Your task to perform on an android device: turn off airplane mode Image 0: 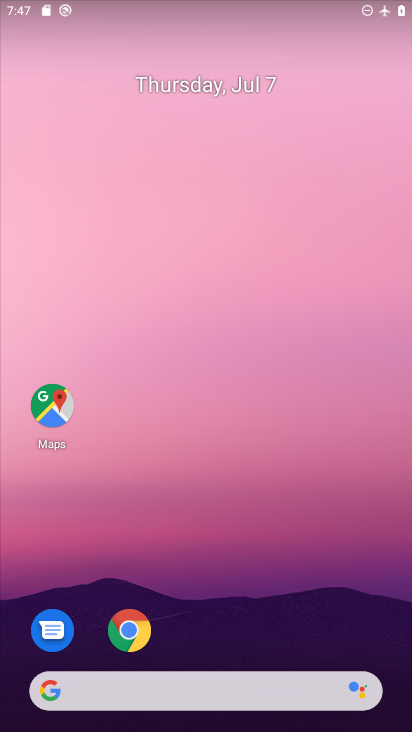
Step 0: drag from (266, 558) to (176, 131)
Your task to perform on an android device: turn off airplane mode Image 1: 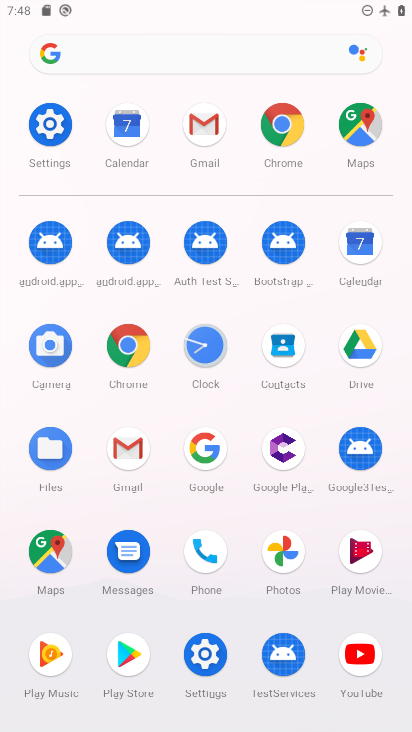
Step 1: click (50, 121)
Your task to perform on an android device: turn off airplane mode Image 2: 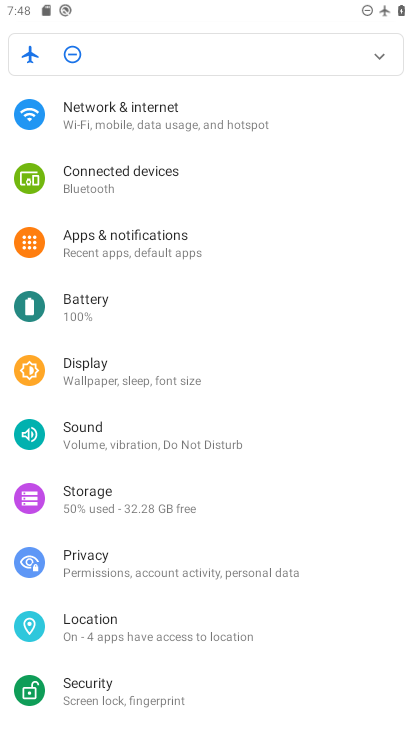
Step 2: click (108, 114)
Your task to perform on an android device: turn off airplane mode Image 3: 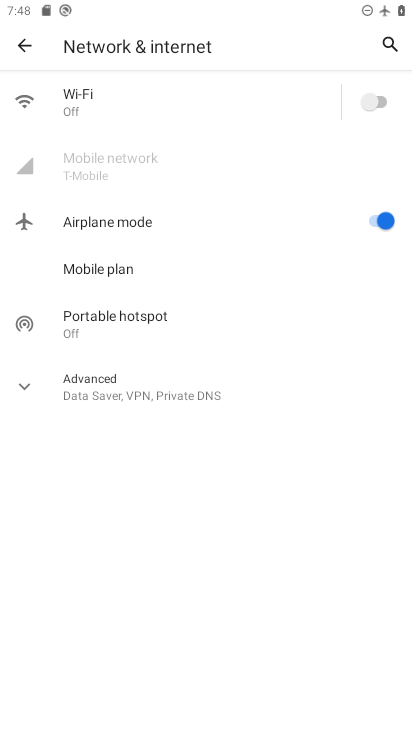
Step 3: click (381, 219)
Your task to perform on an android device: turn off airplane mode Image 4: 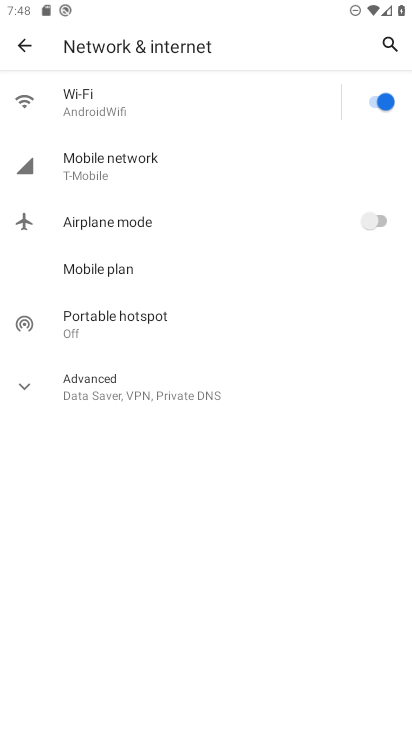
Step 4: task complete